Your task to perform on an android device: turn on bluetooth scan Image 0: 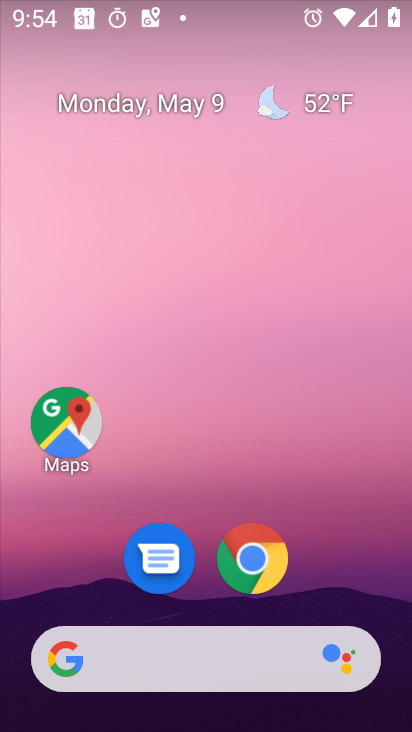
Step 0: drag from (178, 609) to (350, 19)
Your task to perform on an android device: turn on bluetooth scan Image 1: 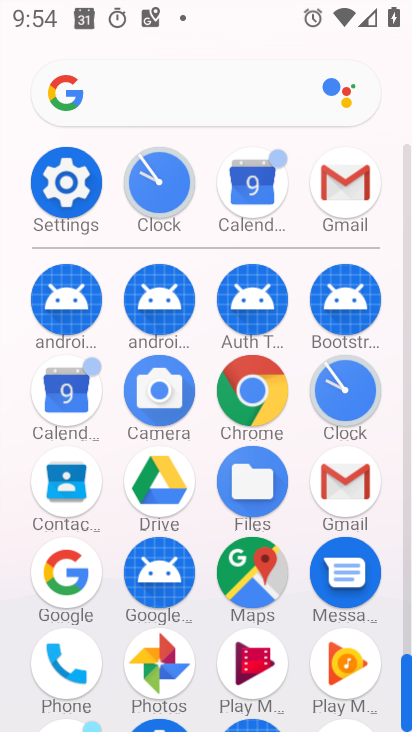
Step 1: click (59, 162)
Your task to perform on an android device: turn on bluetooth scan Image 2: 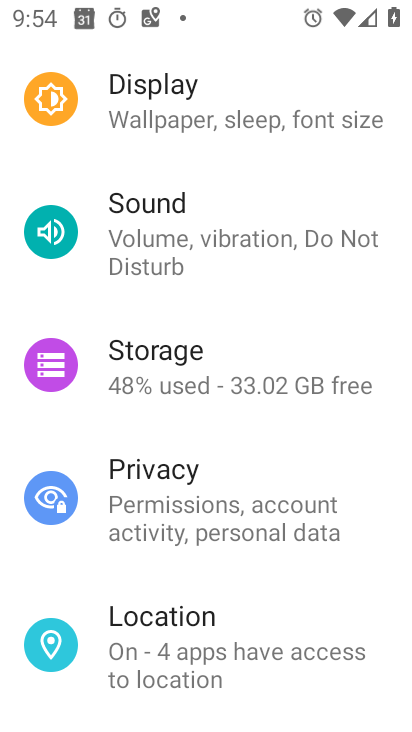
Step 2: drag from (268, 150) to (268, 701)
Your task to perform on an android device: turn on bluetooth scan Image 3: 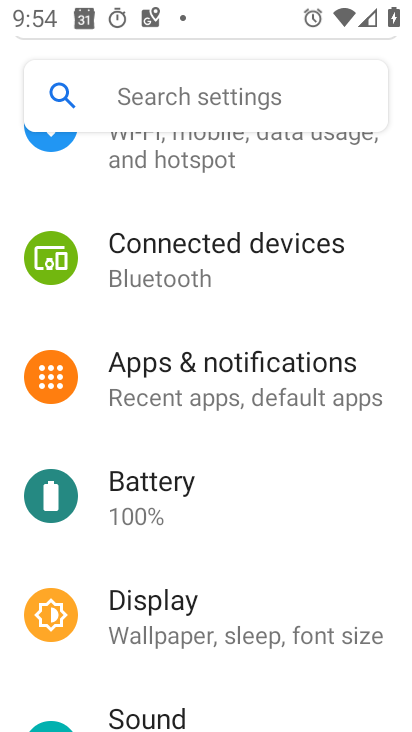
Step 3: click (191, 266)
Your task to perform on an android device: turn on bluetooth scan Image 4: 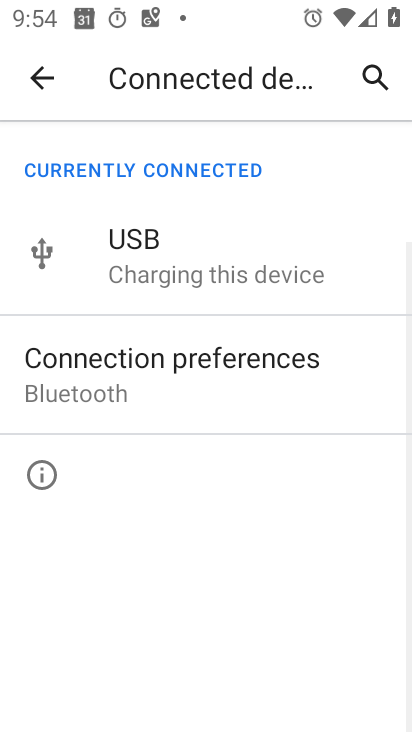
Step 4: click (125, 382)
Your task to perform on an android device: turn on bluetooth scan Image 5: 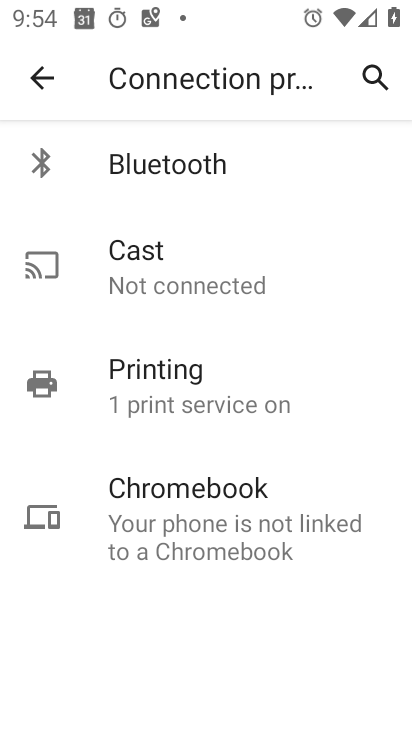
Step 5: click (178, 159)
Your task to perform on an android device: turn on bluetooth scan Image 6: 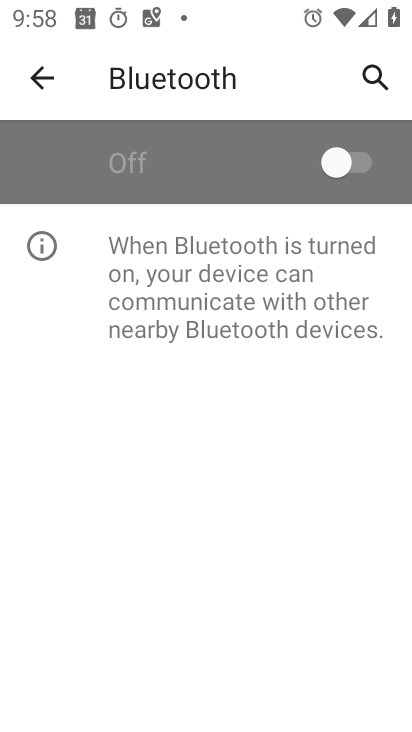
Step 6: click (342, 169)
Your task to perform on an android device: turn on bluetooth scan Image 7: 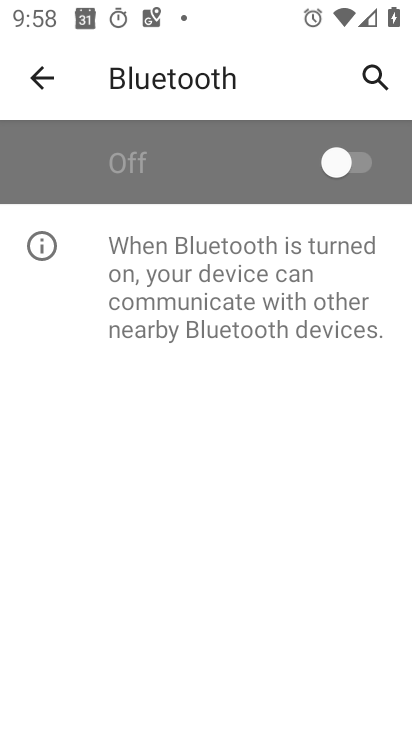
Step 7: task complete